Your task to perform on an android device: change the clock display to digital Image 0: 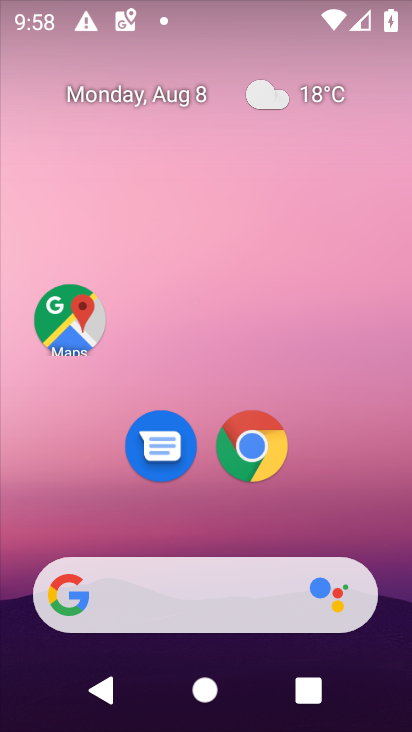
Step 0: drag from (399, 625) to (378, 142)
Your task to perform on an android device: change the clock display to digital Image 1: 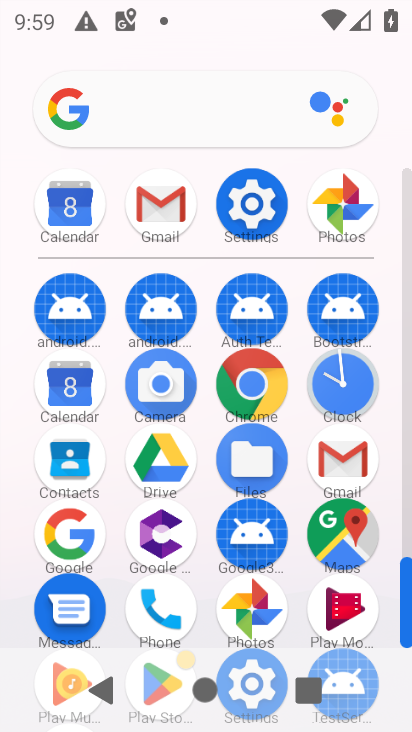
Step 1: click (343, 382)
Your task to perform on an android device: change the clock display to digital Image 2: 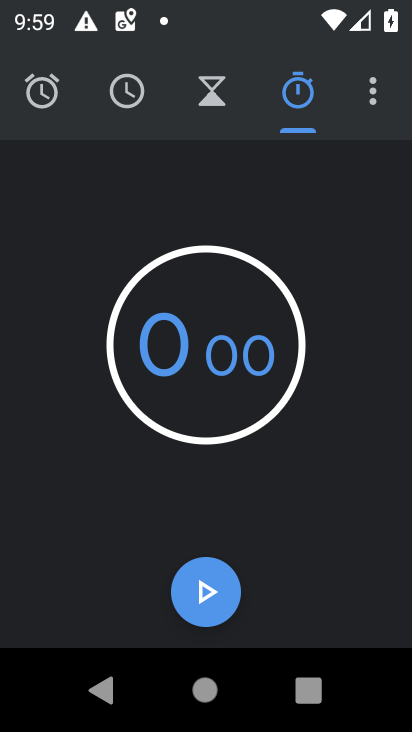
Step 2: click (370, 103)
Your task to perform on an android device: change the clock display to digital Image 3: 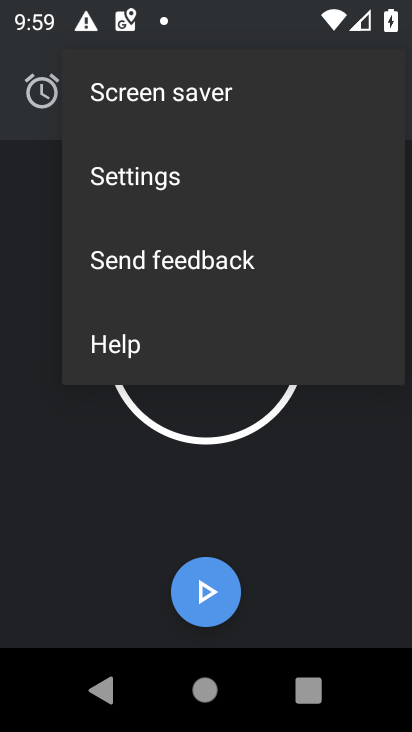
Step 3: click (142, 182)
Your task to perform on an android device: change the clock display to digital Image 4: 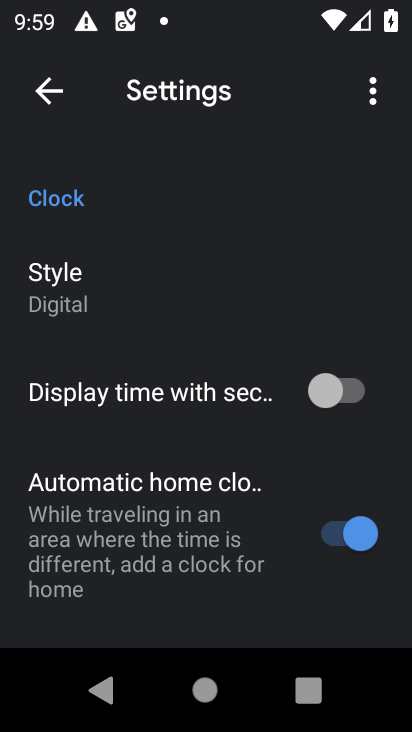
Step 4: task complete